Your task to perform on an android device: turn on notifications settings in the gmail app Image 0: 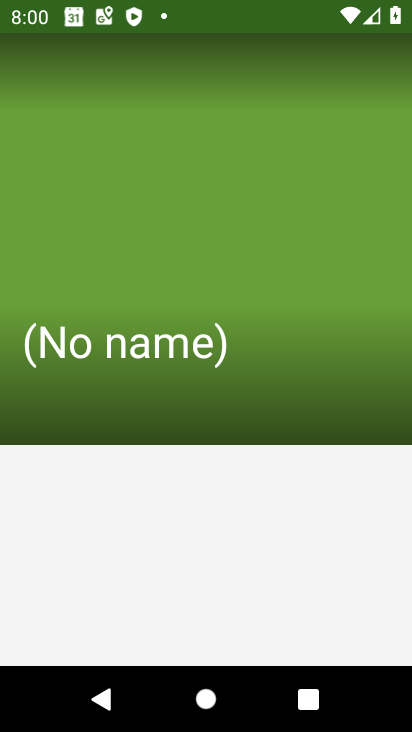
Step 0: drag from (344, 501) to (370, 176)
Your task to perform on an android device: turn on notifications settings in the gmail app Image 1: 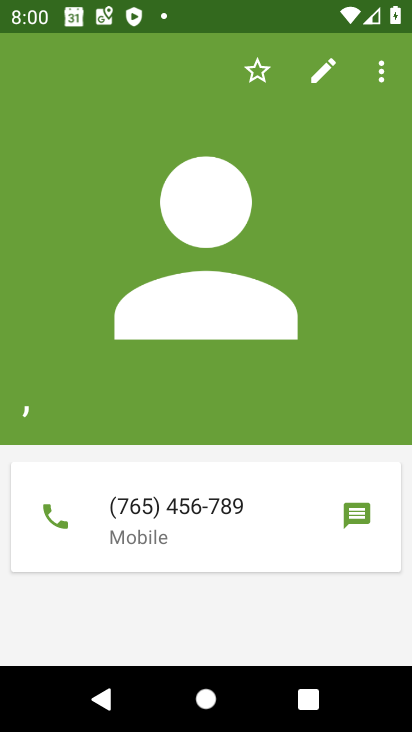
Step 1: press home button
Your task to perform on an android device: turn on notifications settings in the gmail app Image 2: 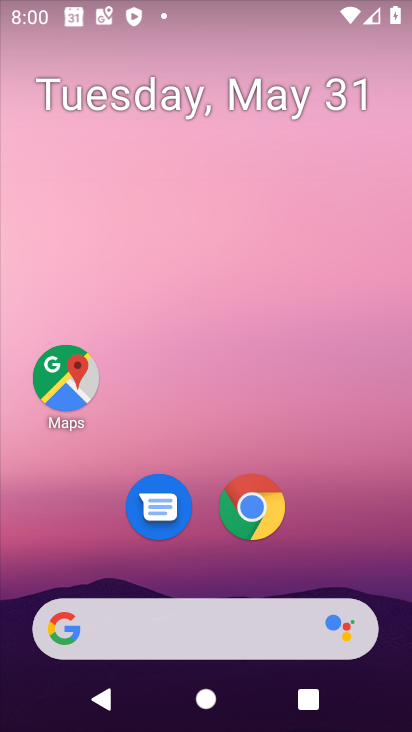
Step 2: drag from (326, 546) to (288, 123)
Your task to perform on an android device: turn on notifications settings in the gmail app Image 3: 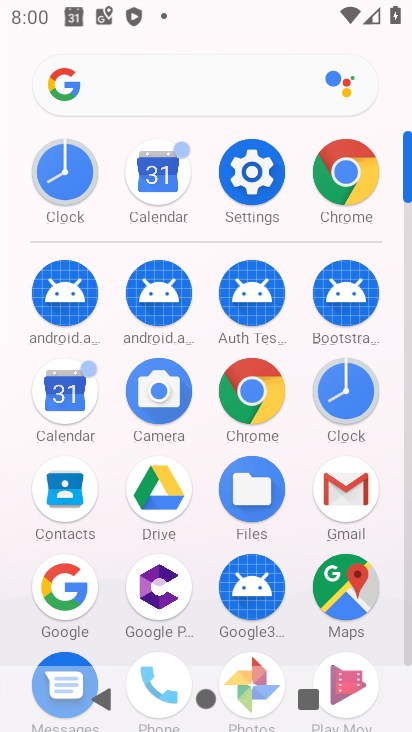
Step 3: click (353, 471)
Your task to perform on an android device: turn on notifications settings in the gmail app Image 4: 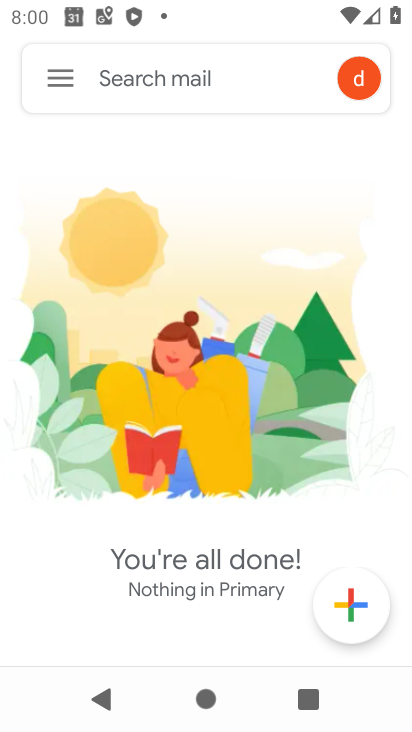
Step 4: click (69, 78)
Your task to perform on an android device: turn on notifications settings in the gmail app Image 5: 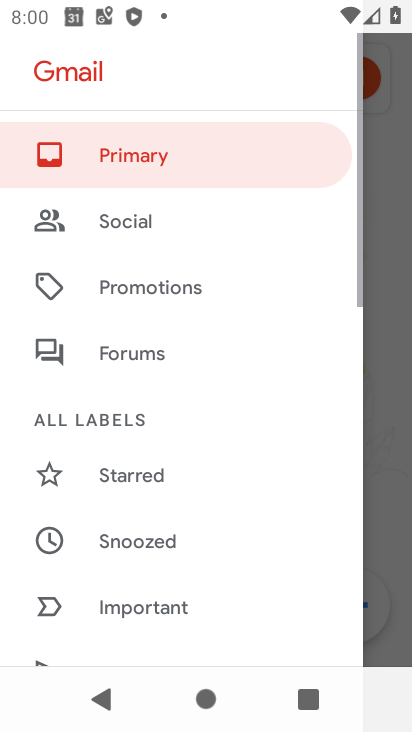
Step 5: drag from (182, 595) to (178, 157)
Your task to perform on an android device: turn on notifications settings in the gmail app Image 6: 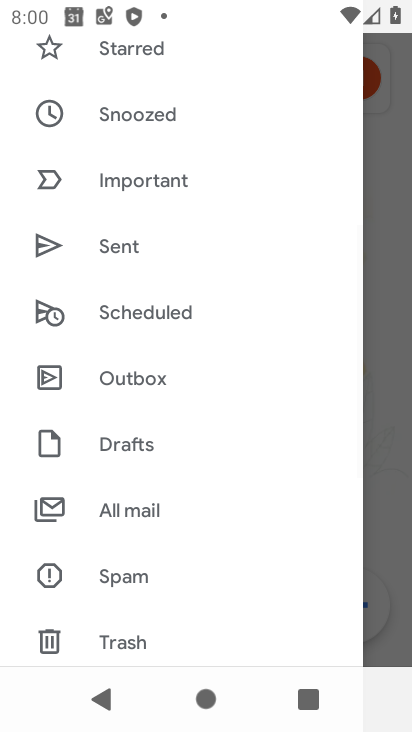
Step 6: drag from (209, 527) to (180, 117)
Your task to perform on an android device: turn on notifications settings in the gmail app Image 7: 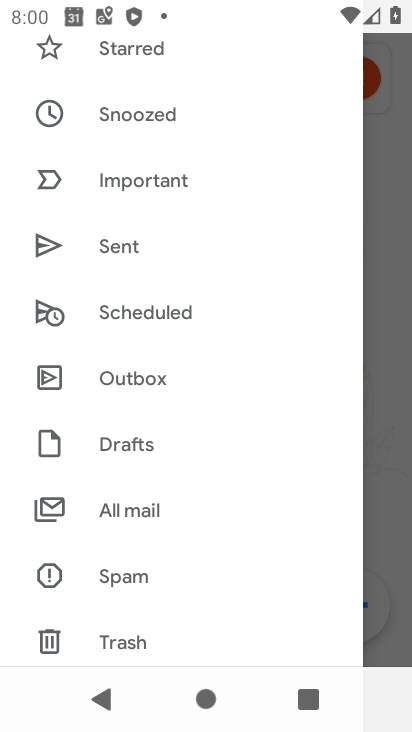
Step 7: drag from (109, 597) to (273, 226)
Your task to perform on an android device: turn on notifications settings in the gmail app Image 8: 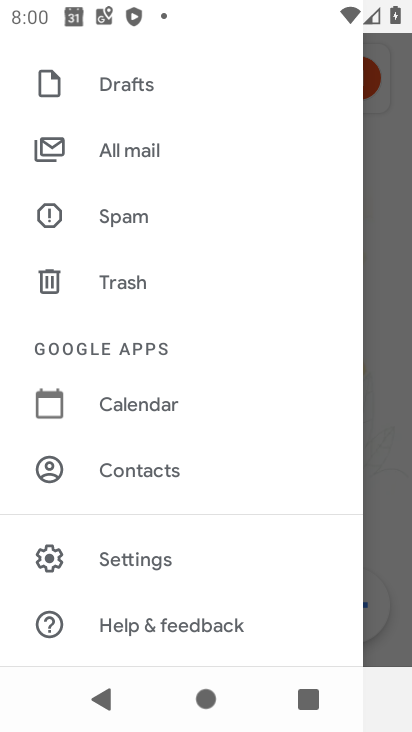
Step 8: click (161, 558)
Your task to perform on an android device: turn on notifications settings in the gmail app Image 9: 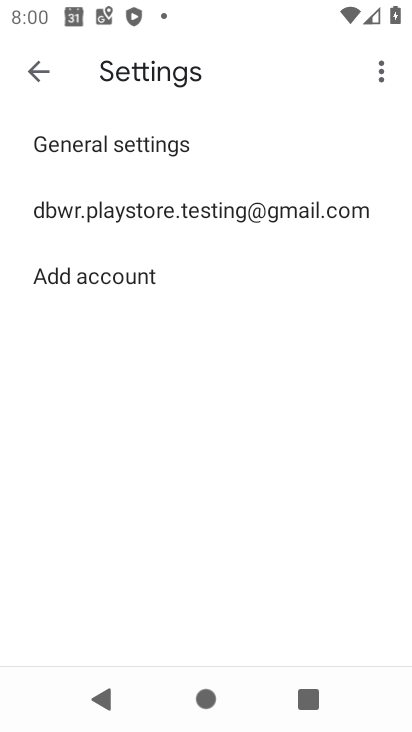
Step 9: click (209, 211)
Your task to perform on an android device: turn on notifications settings in the gmail app Image 10: 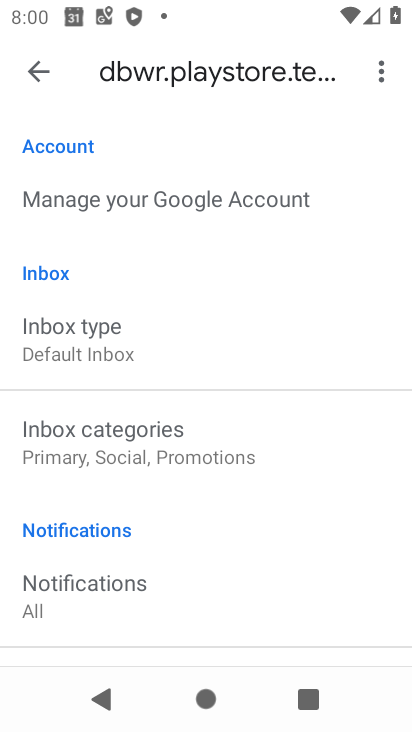
Step 10: drag from (245, 593) to (265, 186)
Your task to perform on an android device: turn on notifications settings in the gmail app Image 11: 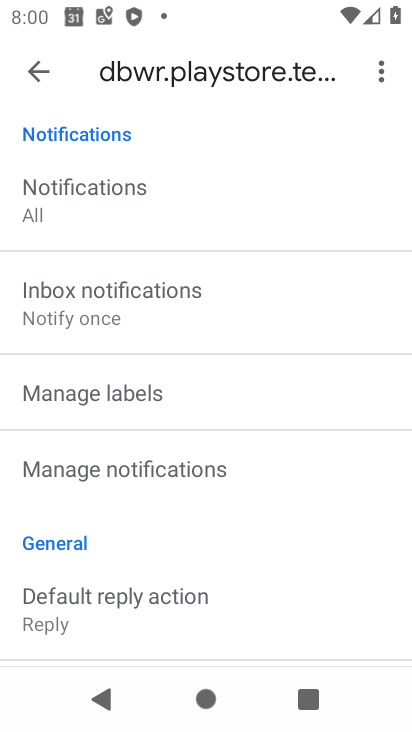
Step 11: click (165, 466)
Your task to perform on an android device: turn on notifications settings in the gmail app Image 12: 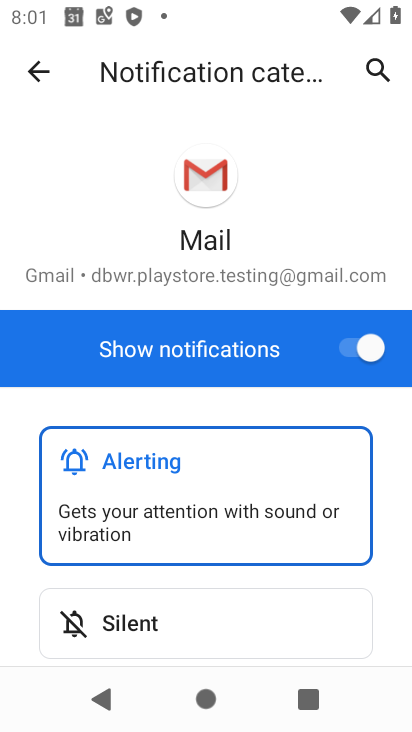
Step 12: task complete